Your task to perform on an android device: open chrome privacy settings Image 0: 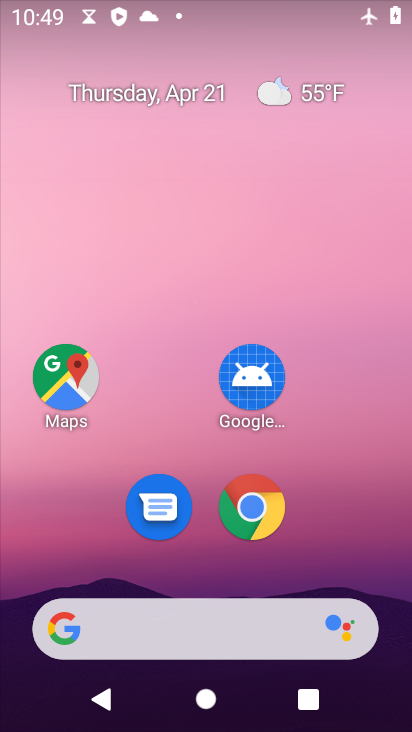
Step 0: drag from (305, 537) to (300, 193)
Your task to perform on an android device: open chrome privacy settings Image 1: 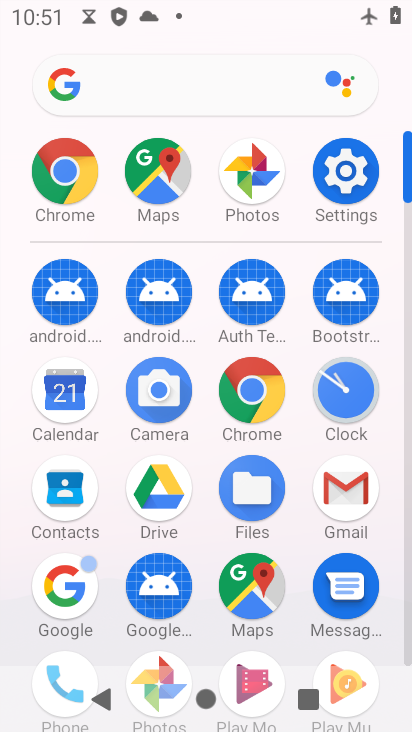
Step 1: click (240, 388)
Your task to perform on an android device: open chrome privacy settings Image 2: 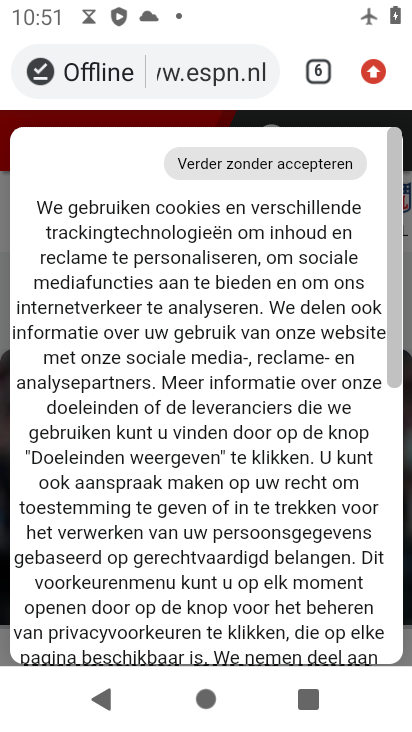
Step 2: click (382, 71)
Your task to perform on an android device: open chrome privacy settings Image 3: 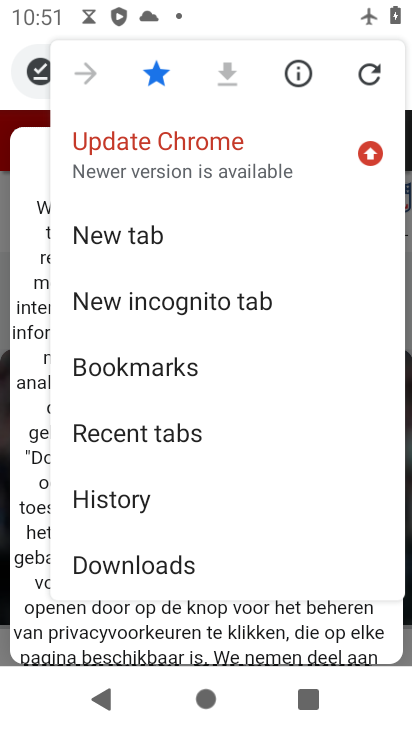
Step 3: drag from (187, 553) to (242, 227)
Your task to perform on an android device: open chrome privacy settings Image 4: 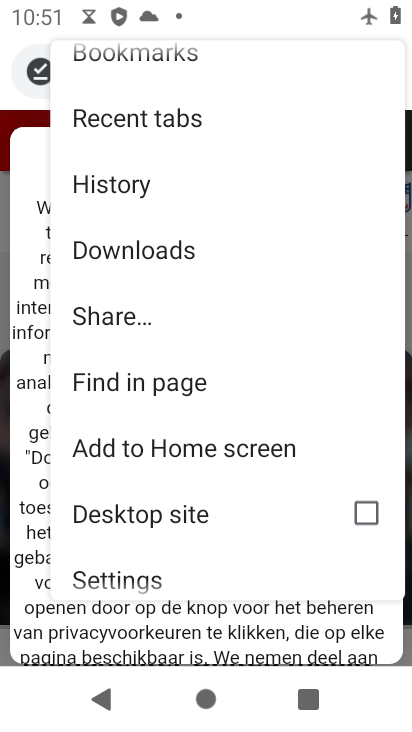
Step 4: drag from (246, 530) to (261, 220)
Your task to perform on an android device: open chrome privacy settings Image 5: 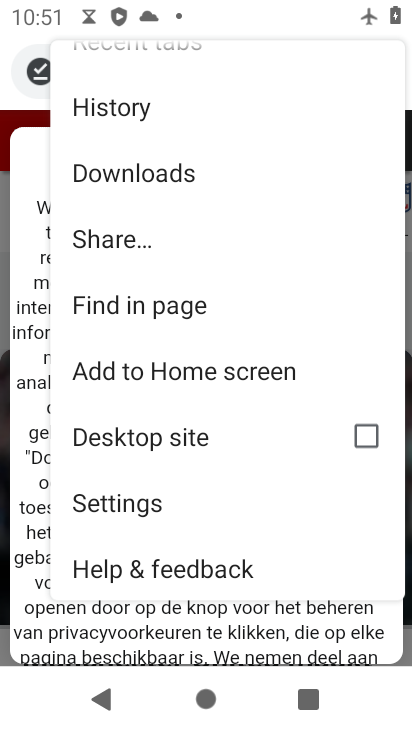
Step 5: click (166, 497)
Your task to perform on an android device: open chrome privacy settings Image 6: 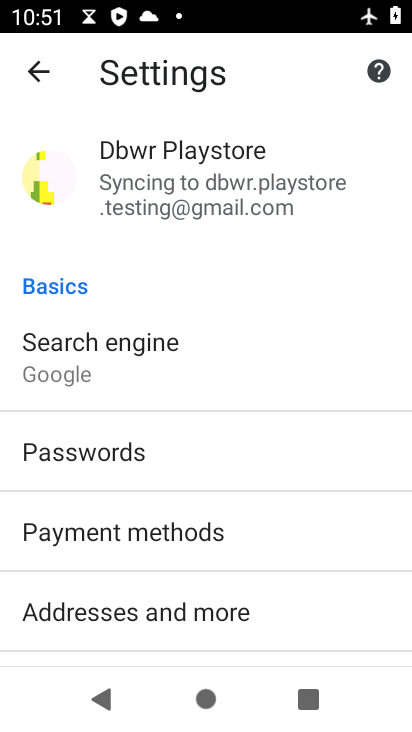
Step 6: drag from (207, 559) to (245, 272)
Your task to perform on an android device: open chrome privacy settings Image 7: 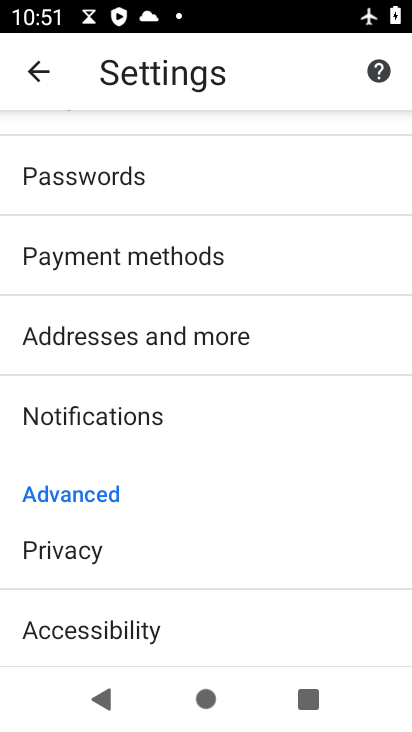
Step 7: click (116, 549)
Your task to perform on an android device: open chrome privacy settings Image 8: 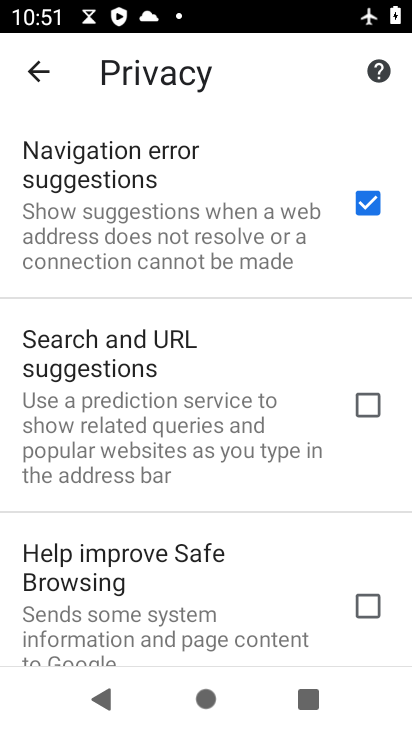
Step 8: task complete